Your task to perform on an android device: Show me popular videos on Youtube Image 0: 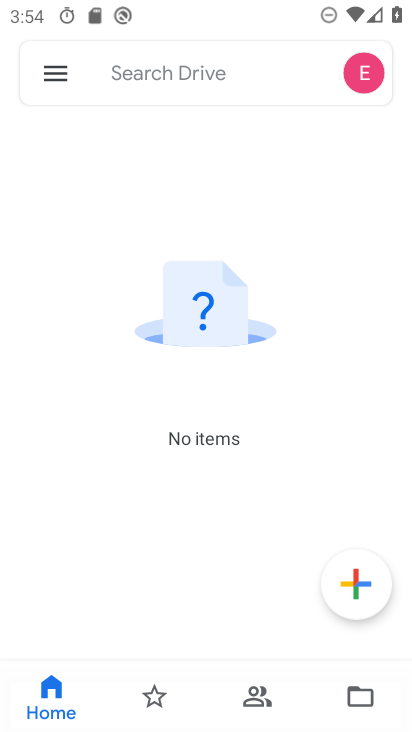
Step 0: press home button
Your task to perform on an android device: Show me popular videos on Youtube Image 1: 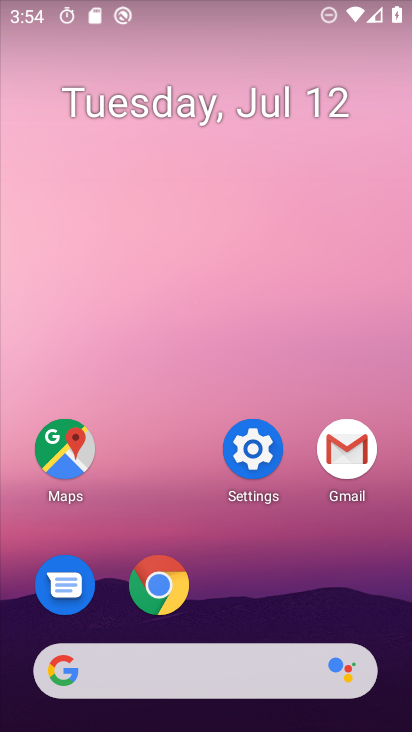
Step 1: drag from (390, 695) to (311, 204)
Your task to perform on an android device: Show me popular videos on Youtube Image 2: 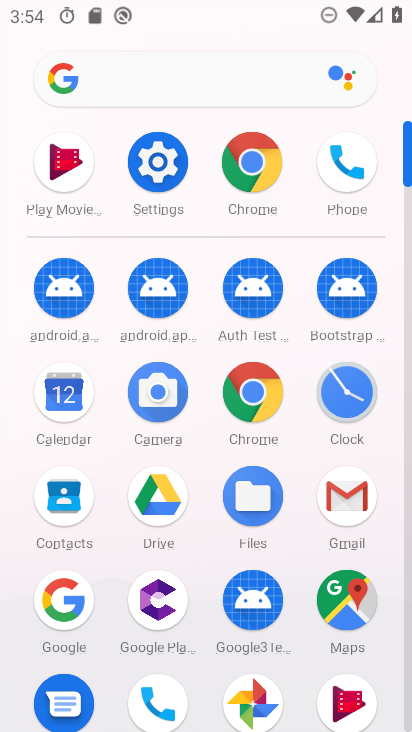
Step 2: drag from (284, 584) to (214, 83)
Your task to perform on an android device: Show me popular videos on Youtube Image 3: 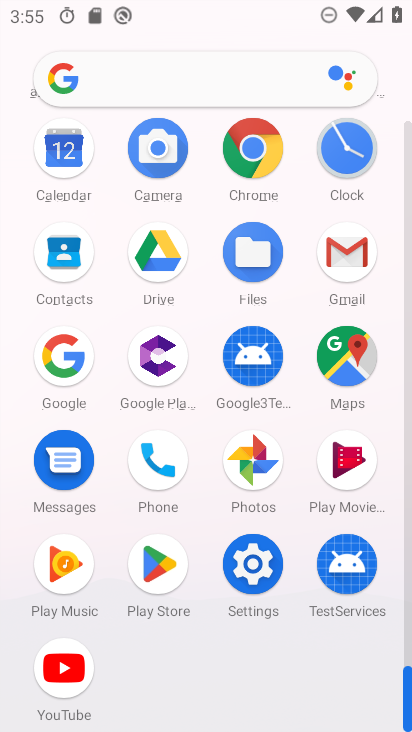
Step 3: click (60, 681)
Your task to perform on an android device: Show me popular videos on Youtube Image 4: 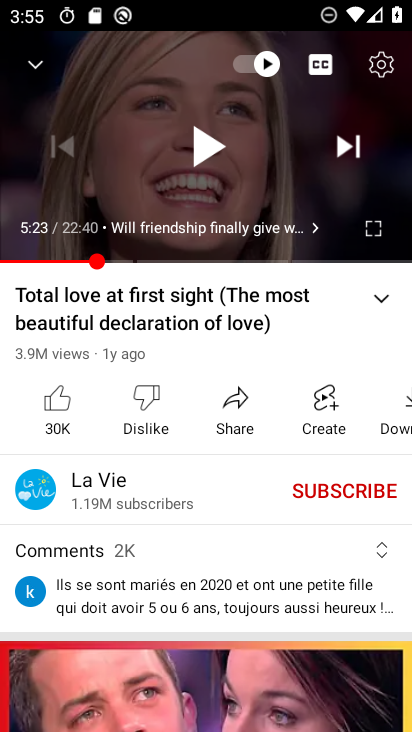
Step 4: press back button
Your task to perform on an android device: Show me popular videos on Youtube Image 5: 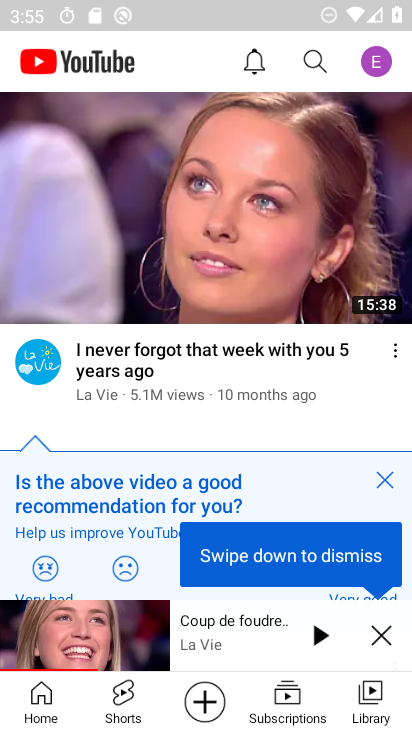
Step 5: click (307, 60)
Your task to perform on an android device: Show me popular videos on Youtube Image 6: 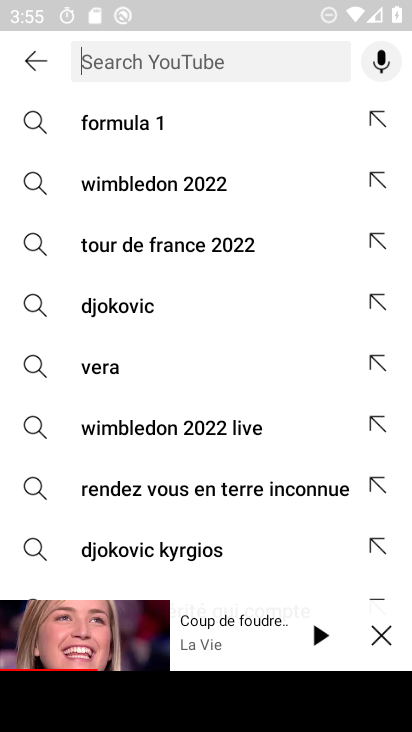
Step 6: type "popular videos on Youtube"
Your task to perform on an android device: Show me popular videos on Youtube Image 7: 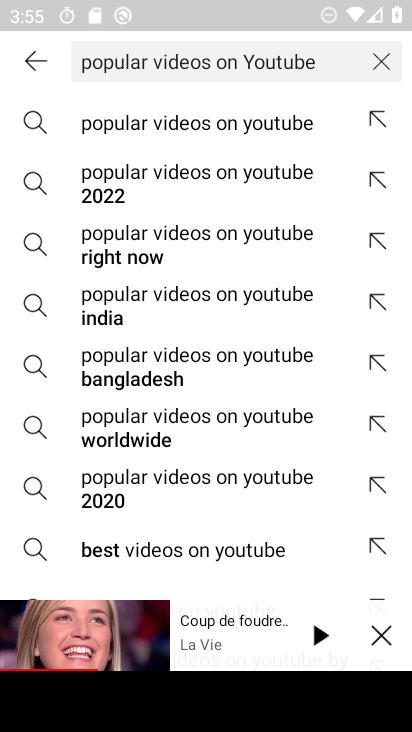
Step 7: click (247, 126)
Your task to perform on an android device: Show me popular videos on Youtube Image 8: 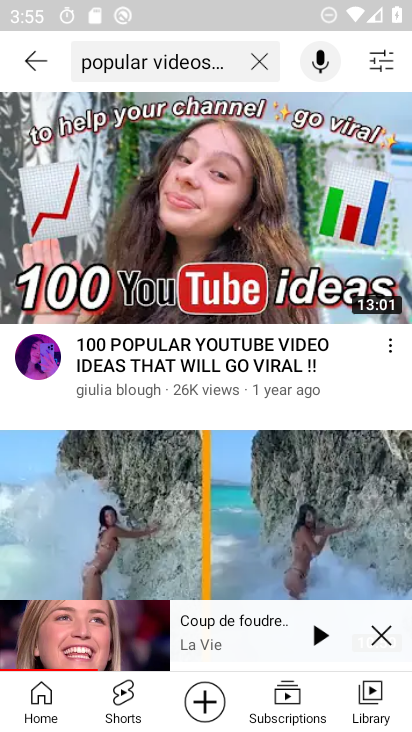
Step 8: click (388, 628)
Your task to perform on an android device: Show me popular videos on Youtube Image 9: 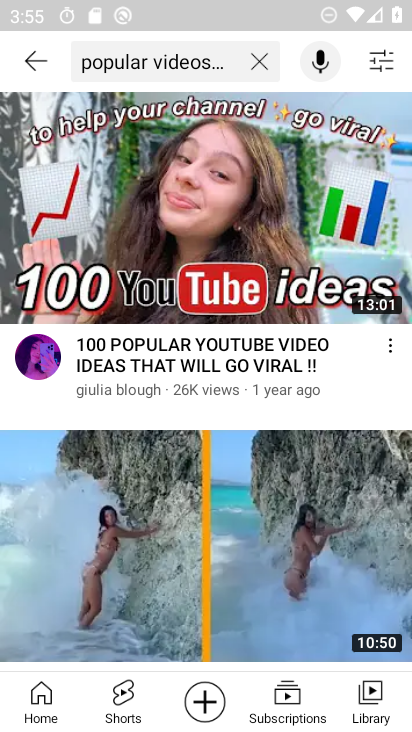
Step 9: task complete